Your task to perform on an android device: Open calendar and show me the first week of next month Image 0: 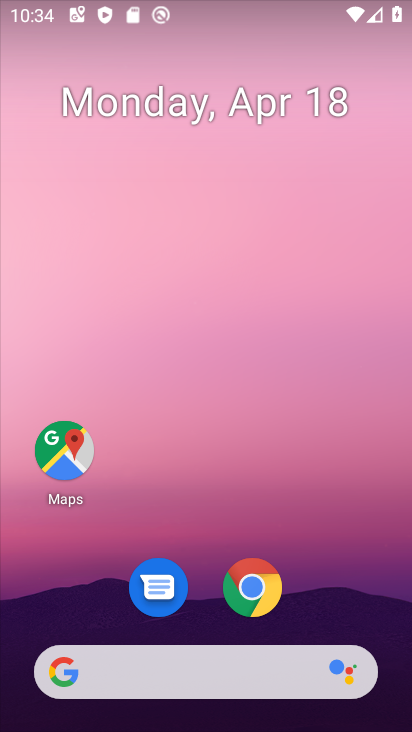
Step 0: drag from (361, 563) to (355, 172)
Your task to perform on an android device: Open calendar and show me the first week of next month Image 1: 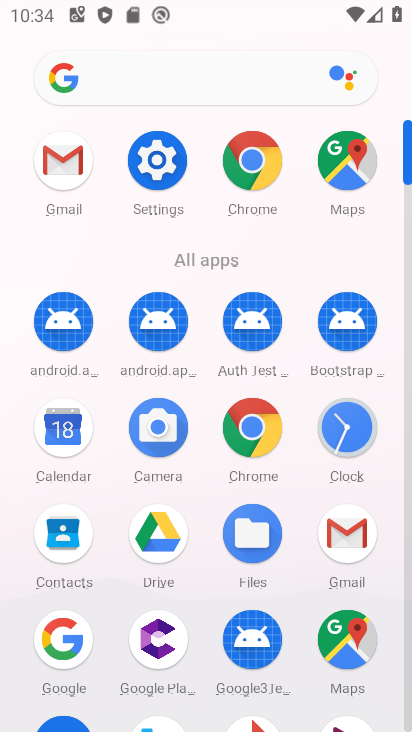
Step 1: click (51, 428)
Your task to perform on an android device: Open calendar and show me the first week of next month Image 2: 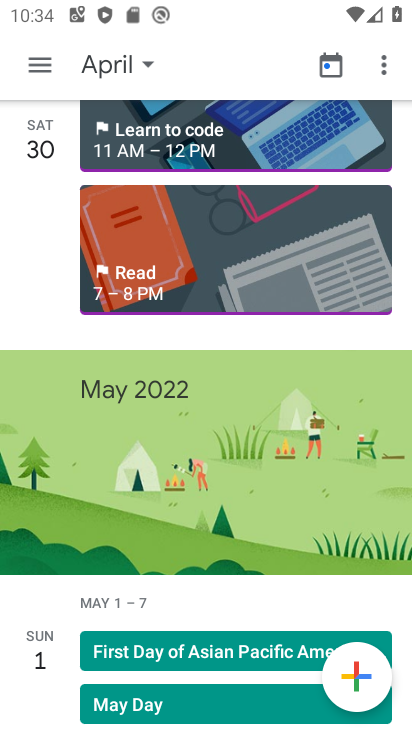
Step 2: drag from (27, 284) to (37, 641)
Your task to perform on an android device: Open calendar and show me the first week of next month Image 3: 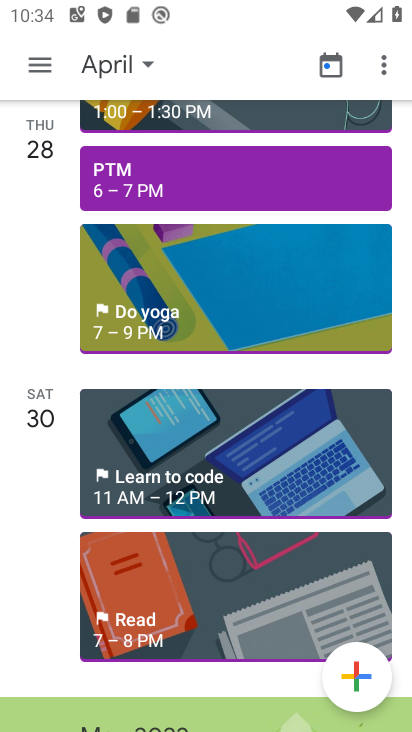
Step 3: click (103, 68)
Your task to perform on an android device: Open calendar and show me the first week of next month Image 4: 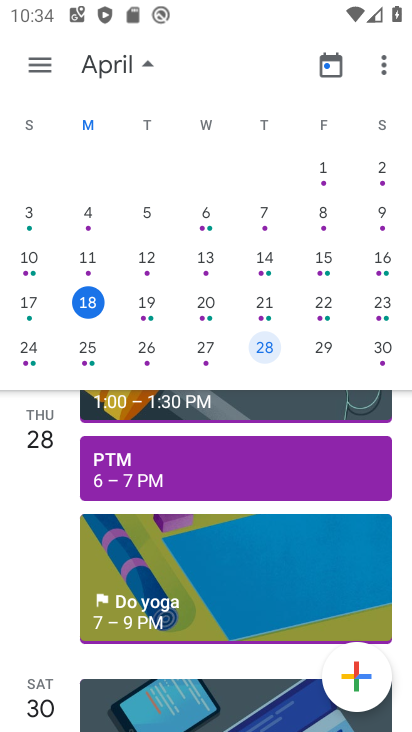
Step 4: drag from (373, 142) to (37, 161)
Your task to perform on an android device: Open calendar and show me the first week of next month Image 5: 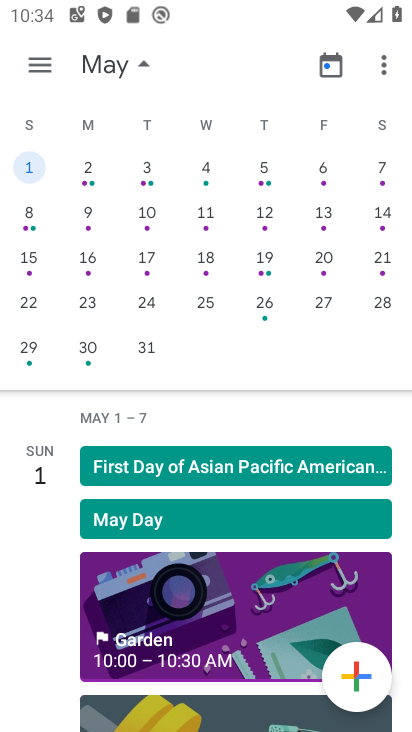
Step 5: click (27, 174)
Your task to perform on an android device: Open calendar and show me the first week of next month Image 6: 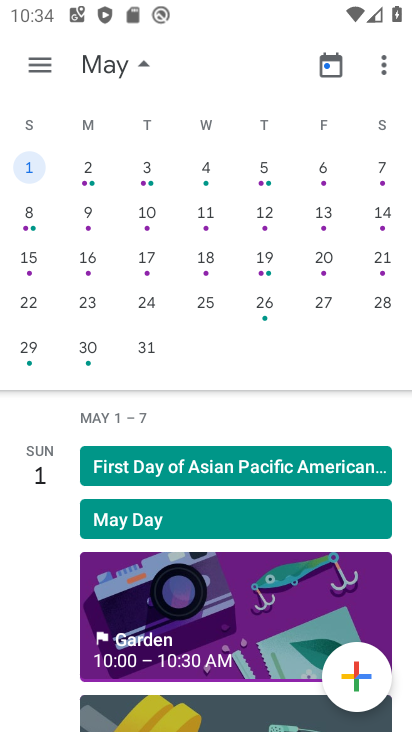
Step 6: task complete